Your task to perform on an android device: Check the weather Image 0: 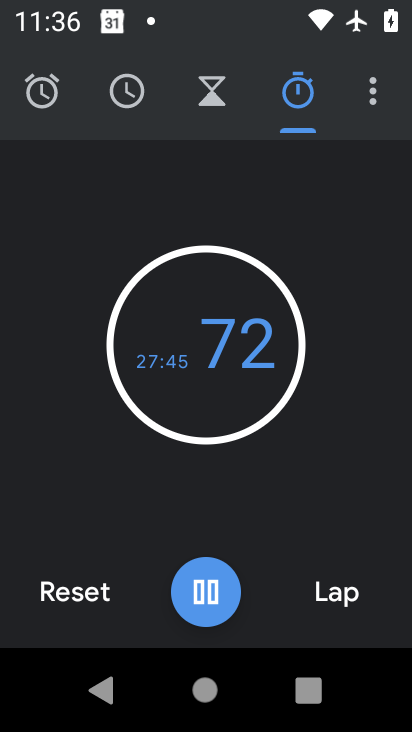
Step 0: press home button
Your task to perform on an android device: Check the weather Image 1: 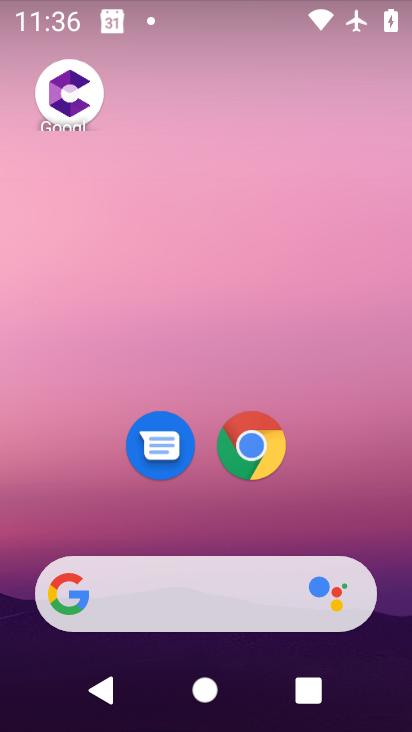
Step 1: click (146, 593)
Your task to perform on an android device: Check the weather Image 2: 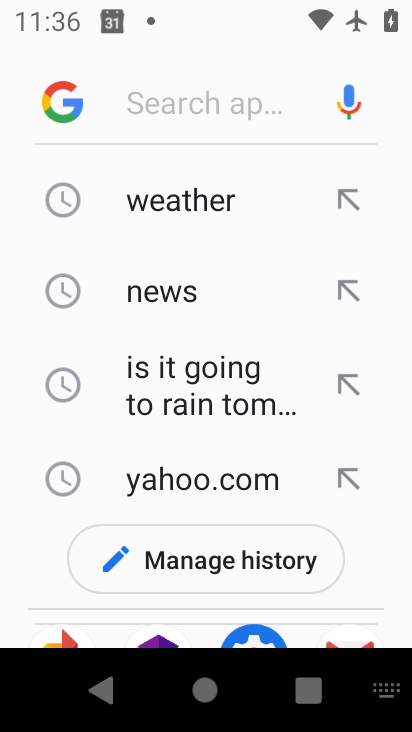
Step 2: click (157, 194)
Your task to perform on an android device: Check the weather Image 3: 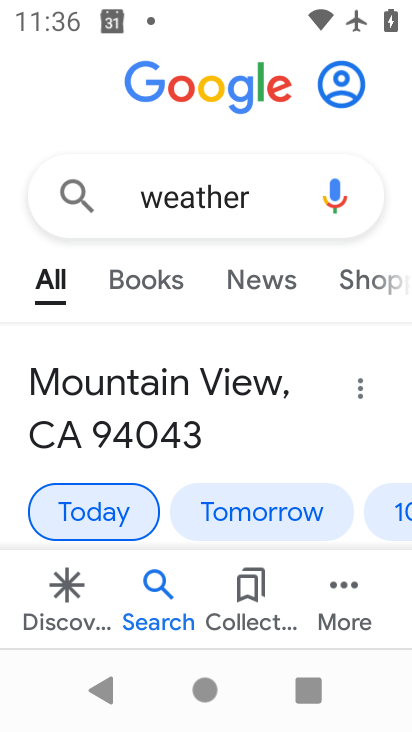
Step 3: task complete